Your task to perform on an android device: Open location settings Image 0: 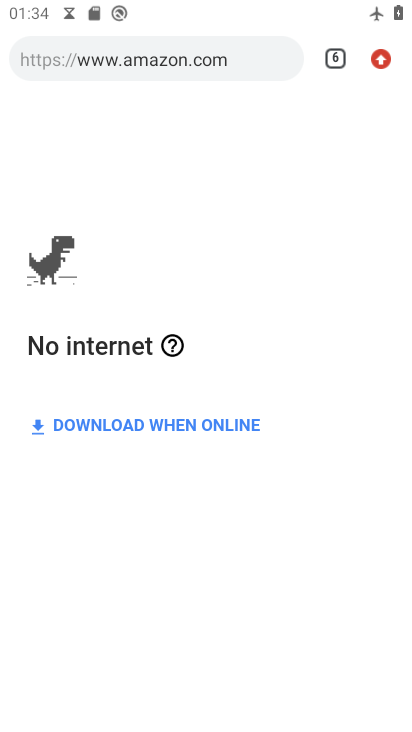
Step 0: press home button
Your task to perform on an android device: Open location settings Image 1: 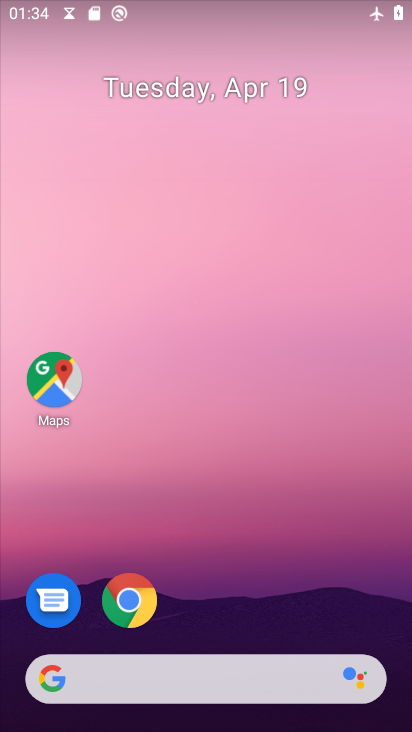
Step 1: drag from (225, 634) to (86, 21)
Your task to perform on an android device: Open location settings Image 2: 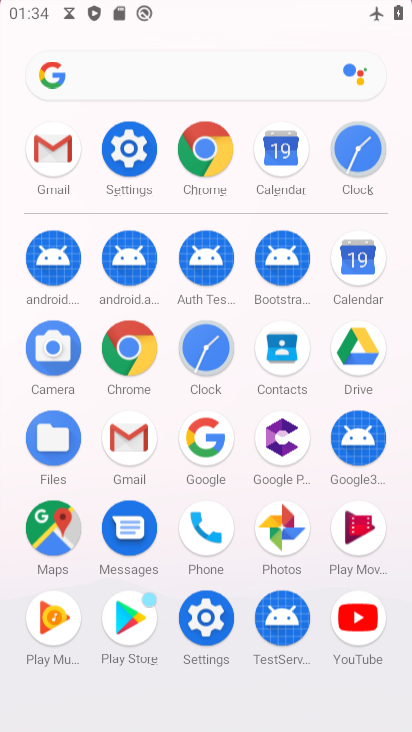
Step 2: click (139, 137)
Your task to perform on an android device: Open location settings Image 3: 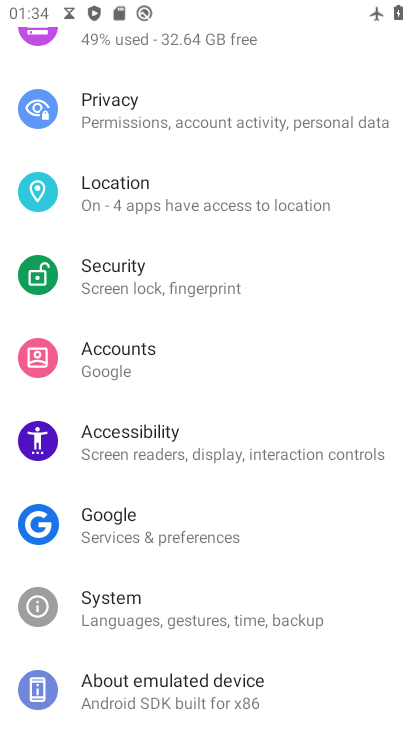
Step 3: click (125, 197)
Your task to perform on an android device: Open location settings Image 4: 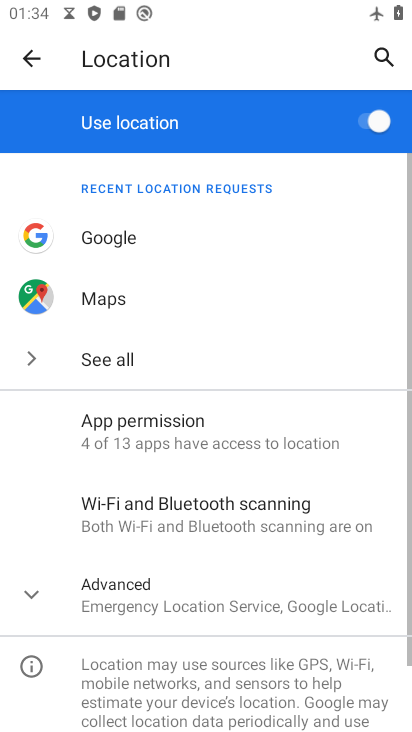
Step 4: task complete